Your task to perform on an android device: open app "DoorDash - Dasher" Image 0: 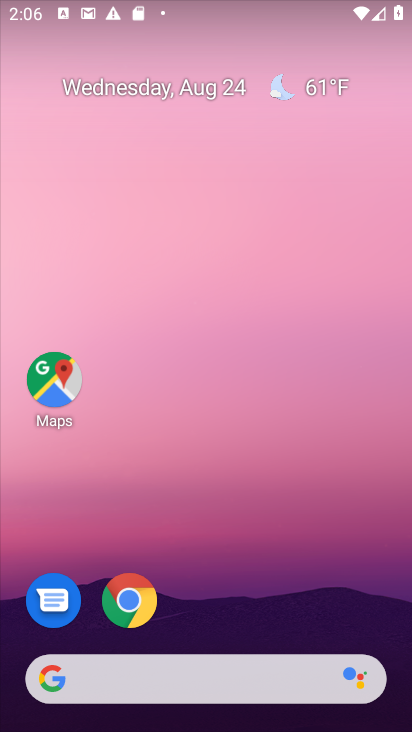
Step 0: drag from (285, 623) to (236, 99)
Your task to perform on an android device: open app "DoorDash - Dasher" Image 1: 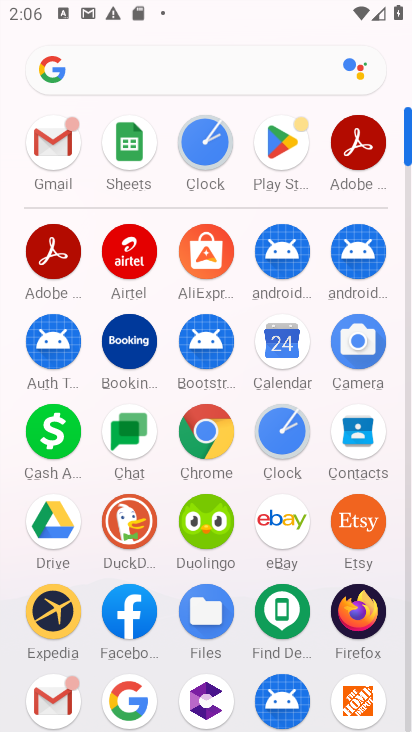
Step 1: click (269, 141)
Your task to perform on an android device: open app "DoorDash - Dasher" Image 2: 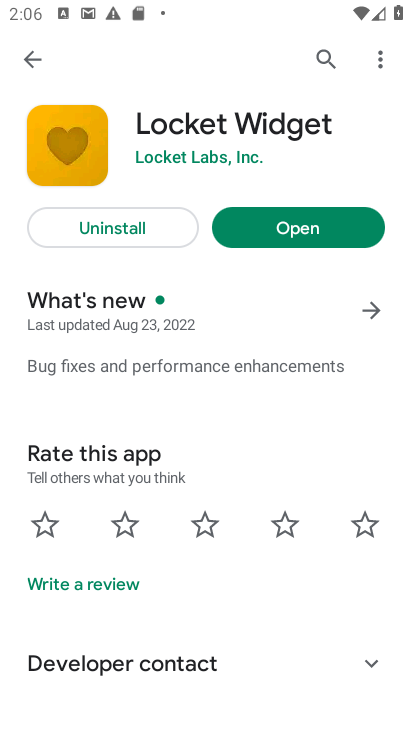
Step 2: click (309, 53)
Your task to perform on an android device: open app "DoorDash - Dasher" Image 3: 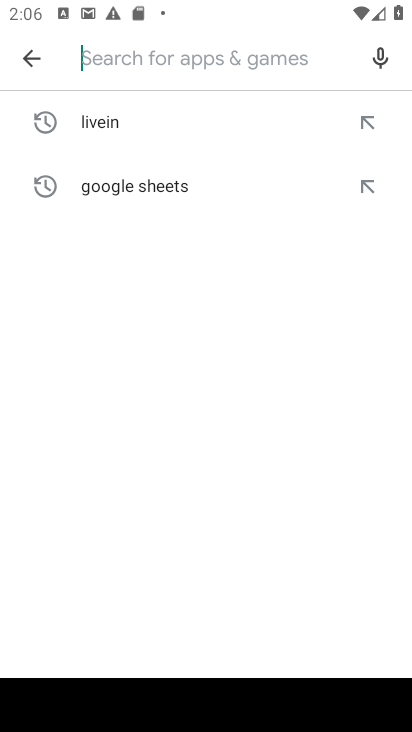
Step 3: type "door dash"
Your task to perform on an android device: open app "DoorDash - Dasher" Image 4: 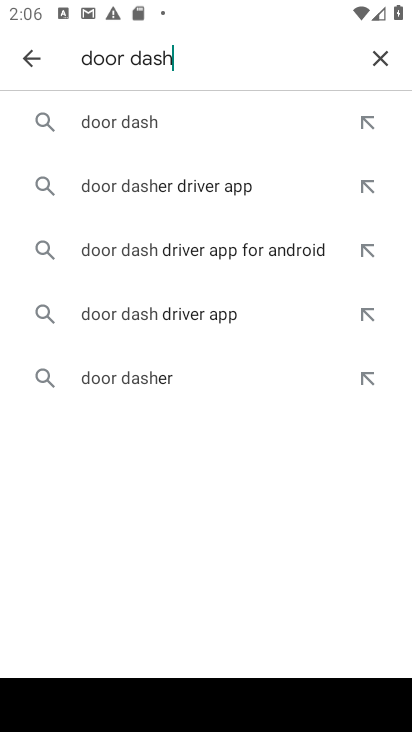
Step 4: click (270, 132)
Your task to perform on an android device: open app "DoorDash - Dasher" Image 5: 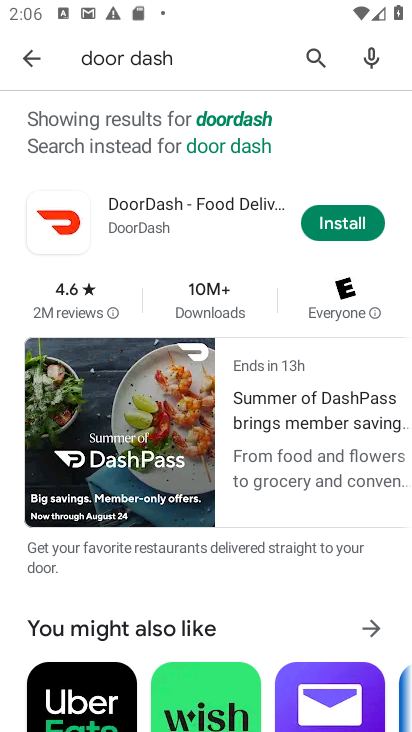
Step 5: click (324, 216)
Your task to perform on an android device: open app "DoorDash - Dasher" Image 6: 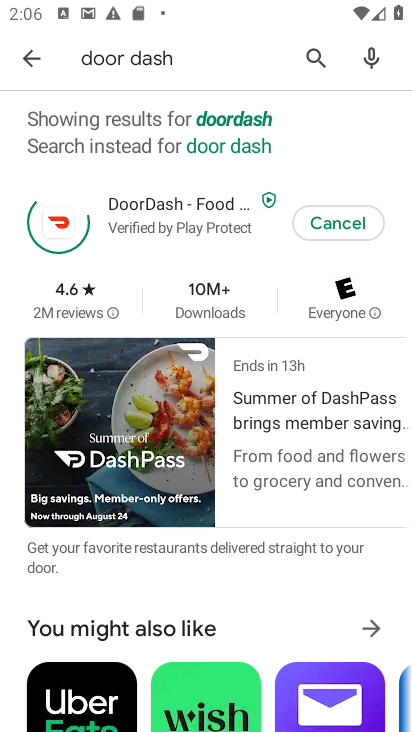
Step 6: task complete